Your task to perform on an android device: Open calendar and show me the second week of next month Image 0: 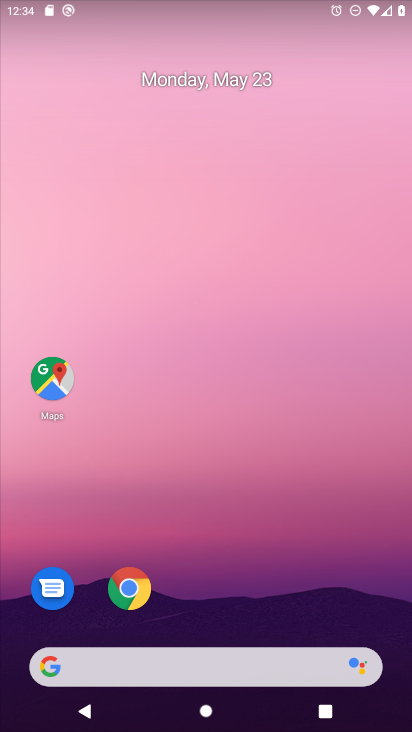
Step 0: drag from (227, 681) to (159, 129)
Your task to perform on an android device: Open calendar and show me the second week of next month Image 1: 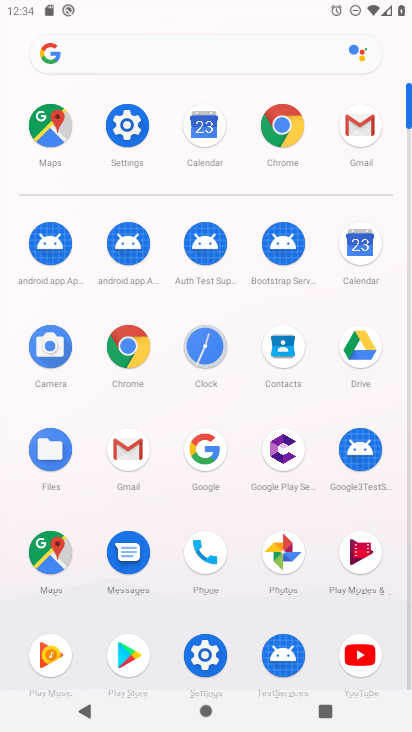
Step 1: click (333, 250)
Your task to perform on an android device: Open calendar and show me the second week of next month Image 2: 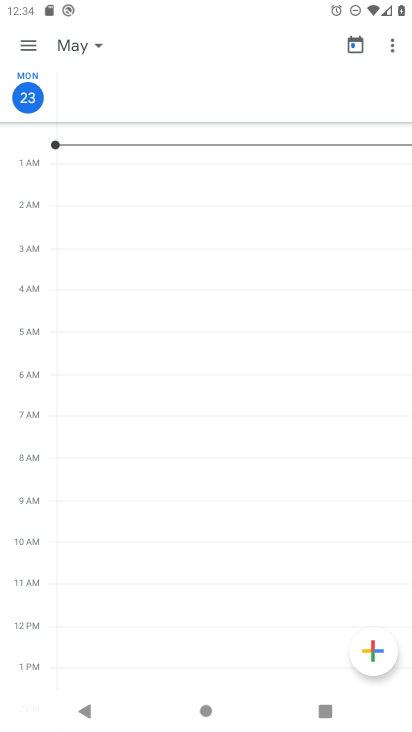
Step 2: click (50, 51)
Your task to perform on an android device: Open calendar and show me the second week of next month Image 3: 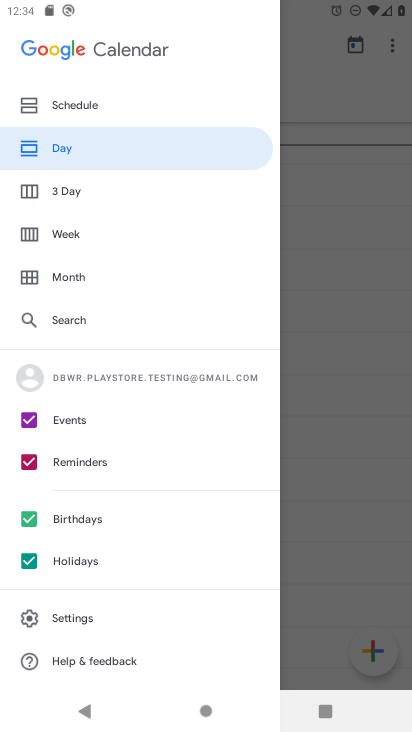
Step 3: click (80, 273)
Your task to perform on an android device: Open calendar and show me the second week of next month Image 4: 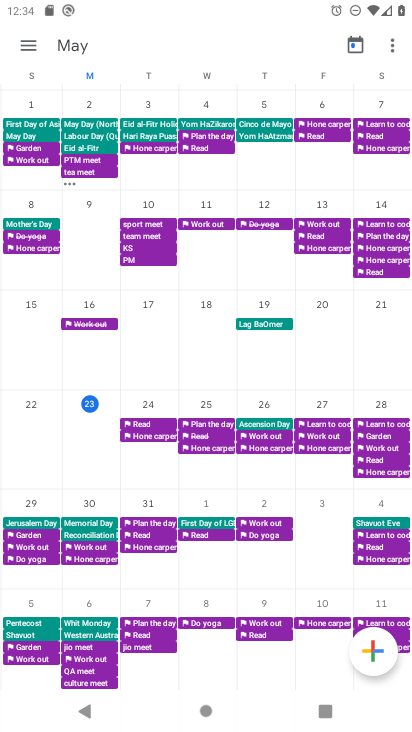
Step 4: click (35, 46)
Your task to perform on an android device: Open calendar and show me the second week of next month Image 5: 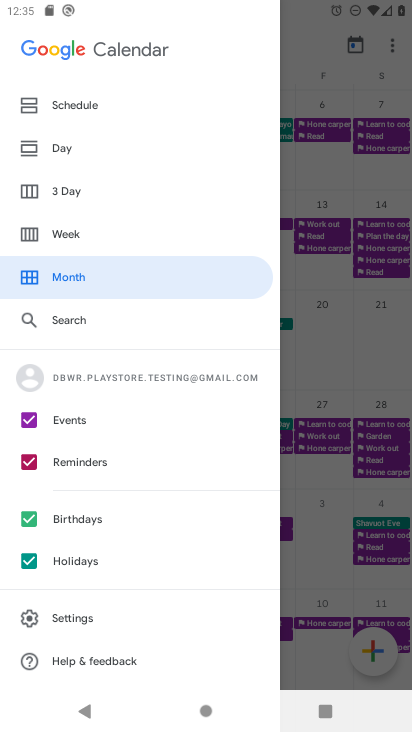
Step 5: click (84, 269)
Your task to perform on an android device: Open calendar and show me the second week of next month Image 6: 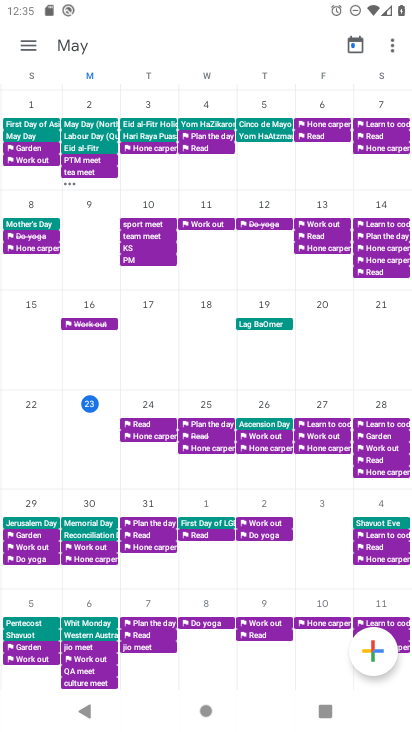
Step 6: drag from (359, 333) to (5, 360)
Your task to perform on an android device: Open calendar and show me the second week of next month Image 7: 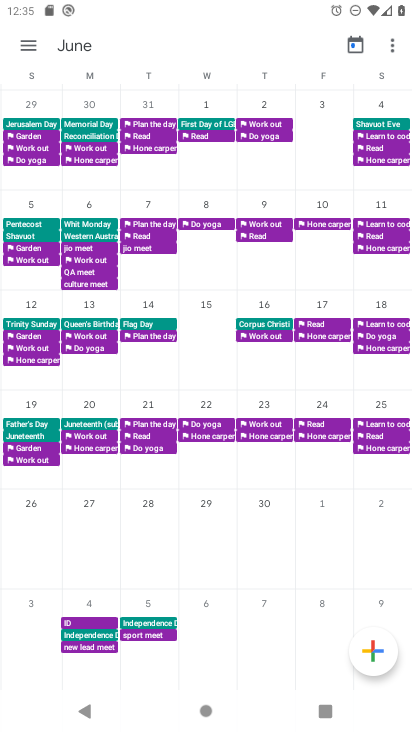
Step 7: click (91, 211)
Your task to perform on an android device: Open calendar and show me the second week of next month Image 8: 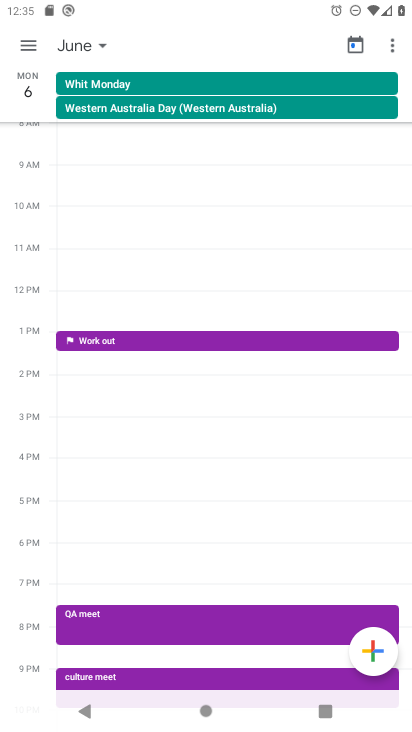
Step 8: task complete